Your task to perform on an android device: allow cookies in the chrome app Image 0: 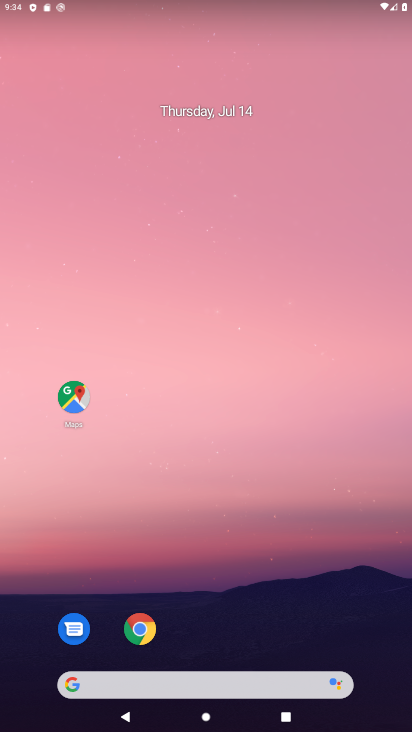
Step 0: click (139, 632)
Your task to perform on an android device: allow cookies in the chrome app Image 1: 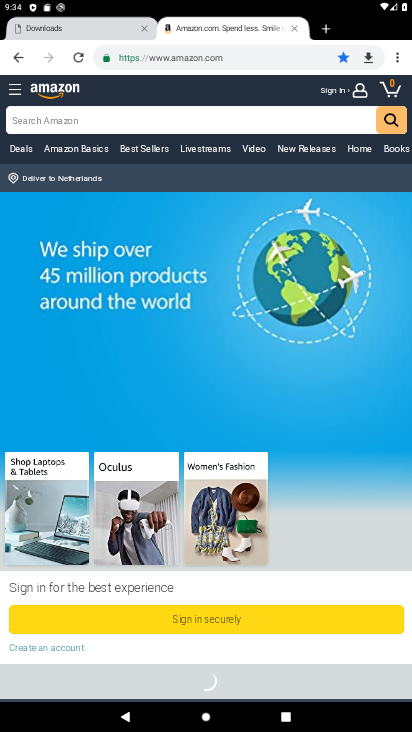
Step 1: click (395, 62)
Your task to perform on an android device: allow cookies in the chrome app Image 2: 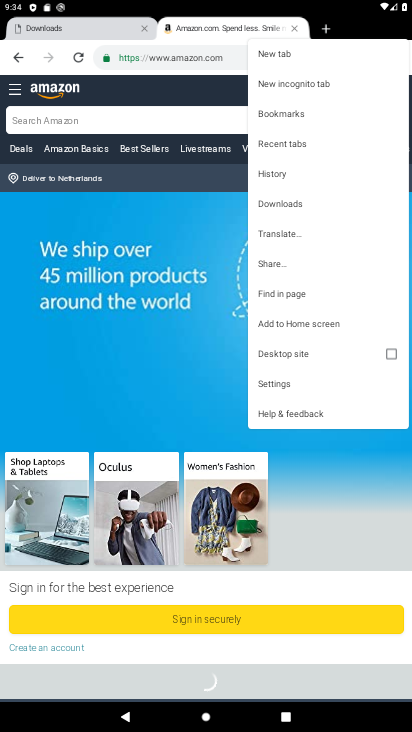
Step 2: click (267, 386)
Your task to perform on an android device: allow cookies in the chrome app Image 3: 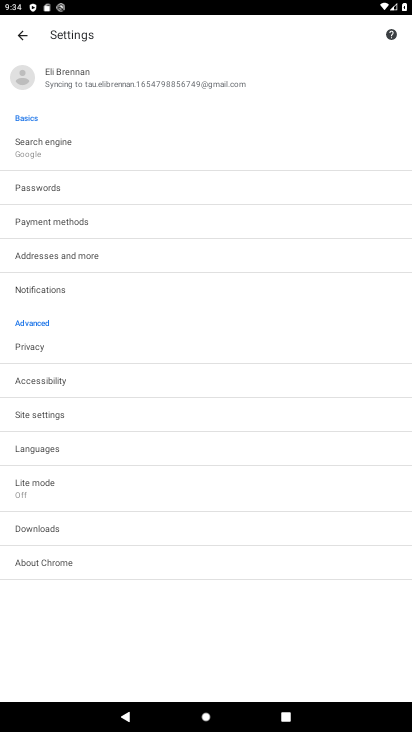
Step 3: click (28, 420)
Your task to perform on an android device: allow cookies in the chrome app Image 4: 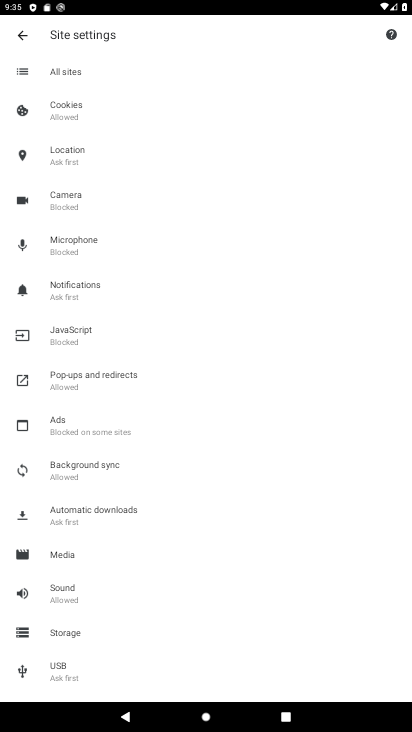
Step 4: click (77, 104)
Your task to perform on an android device: allow cookies in the chrome app Image 5: 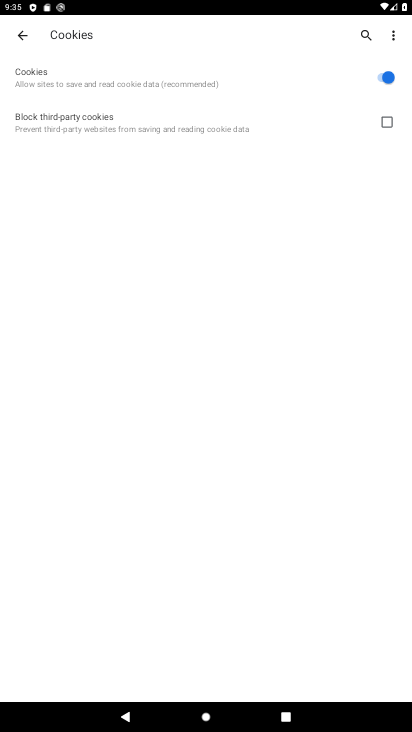
Step 5: task complete